Your task to perform on an android device: toggle show notifications on the lock screen Image 0: 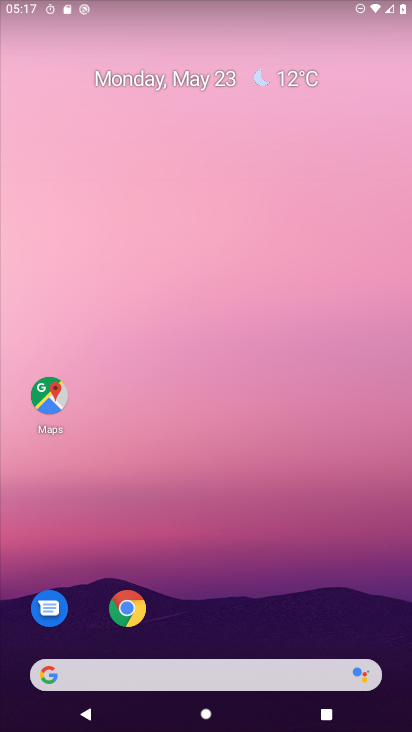
Step 0: drag from (303, 612) to (203, 2)
Your task to perform on an android device: toggle show notifications on the lock screen Image 1: 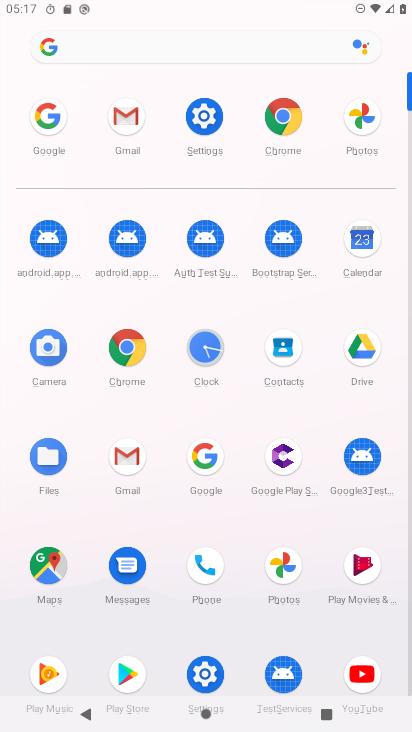
Step 1: click (201, 122)
Your task to perform on an android device: toggle show notifications on the lock screen Image 2: 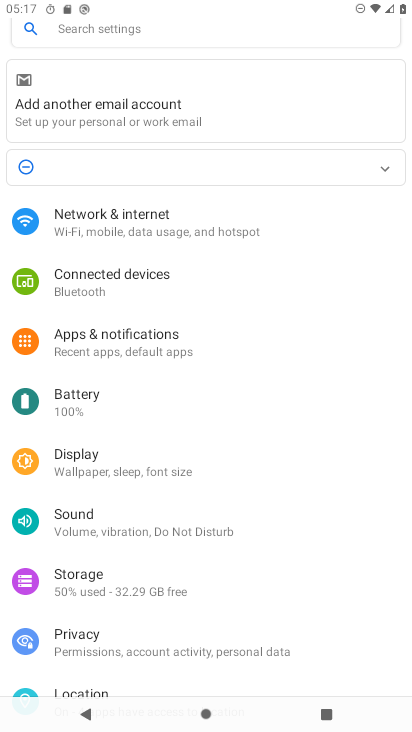
Step 2: click (151, 352)
Your task to perform on an android device: toggle show notifications on the lock screen Image 3: 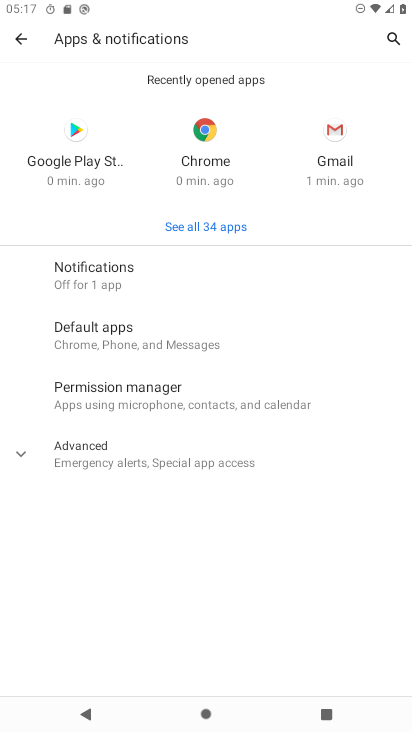
Step 3: click (175, 303)
Your task to perform on an android device: toggle show notifications on the lock screen Image 4: 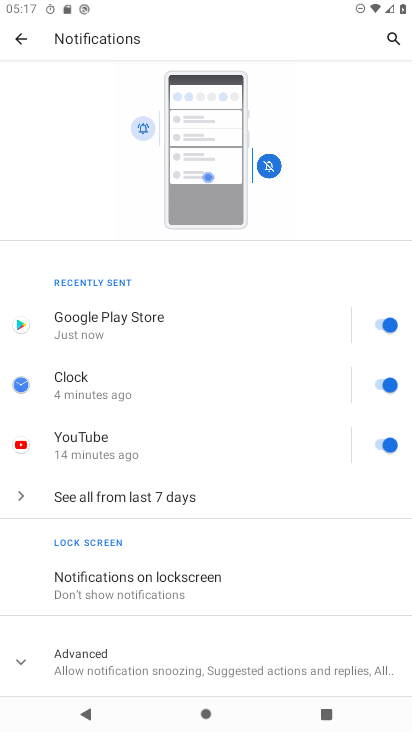
Step 4: click (213, 593)
Your task to perform on an android device: toggle show notifications on the lock screen Image 5: 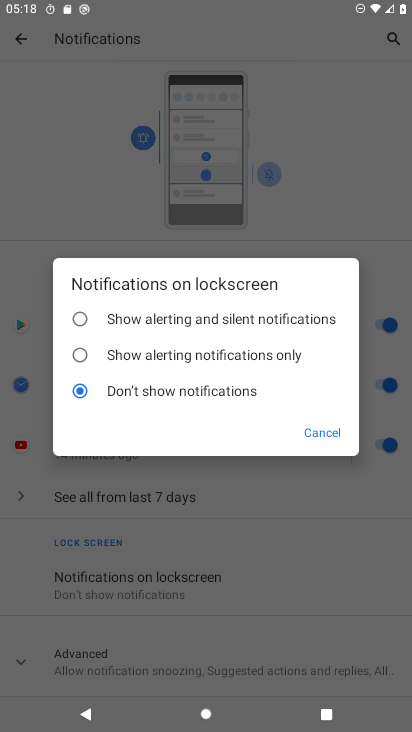
Step 5: click (242, 316)
Your task to perform on an android device: toggle show notifications on the lock screen Image 6: 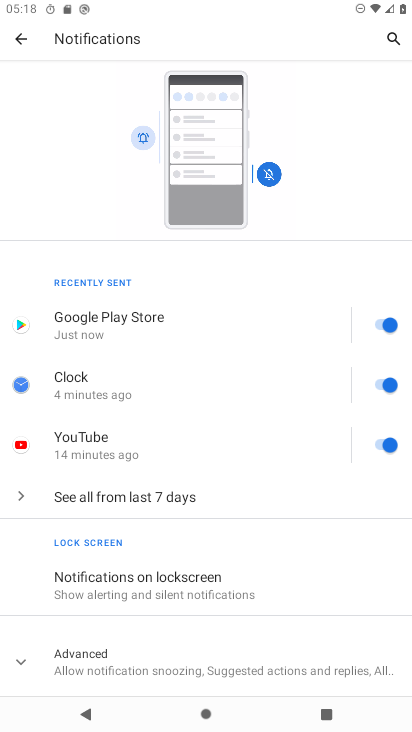
Step 6: task complete